Your task to perform on an android device: Go to Reddit.com Image 0: 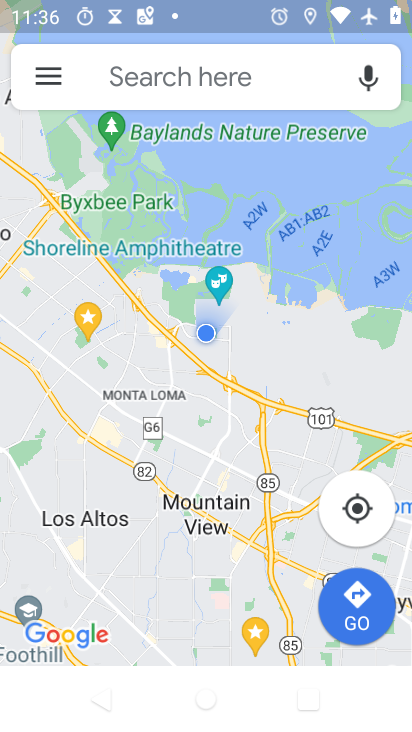
Step 0: press back button
Your task to perform on an android device: Go to Reddit.com Image 1: 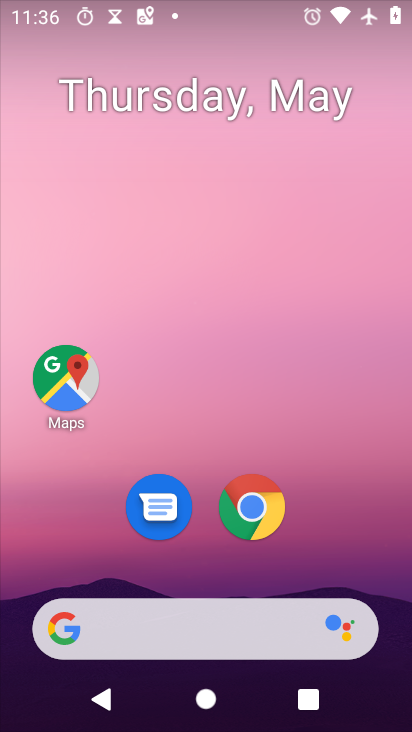
Step 1: drag from (349, 532) to (274, 15)
Your task to perform on an android device: Go to Reddit.com Image 2: 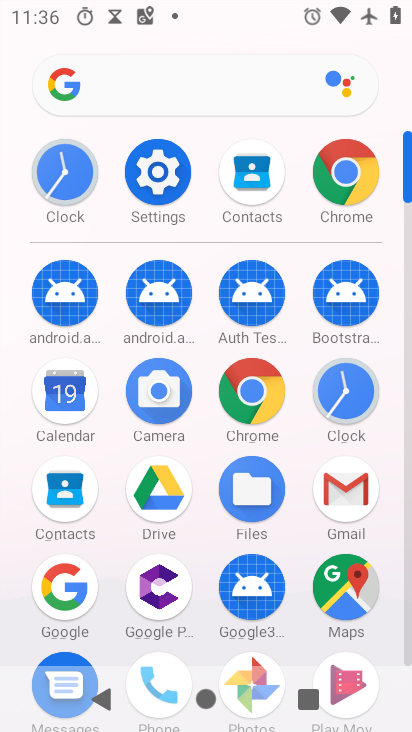
Step 2: drag from (16, 549) to (25, 253)
Your task to perform on an android device: Go to Reddit.com Image 3: 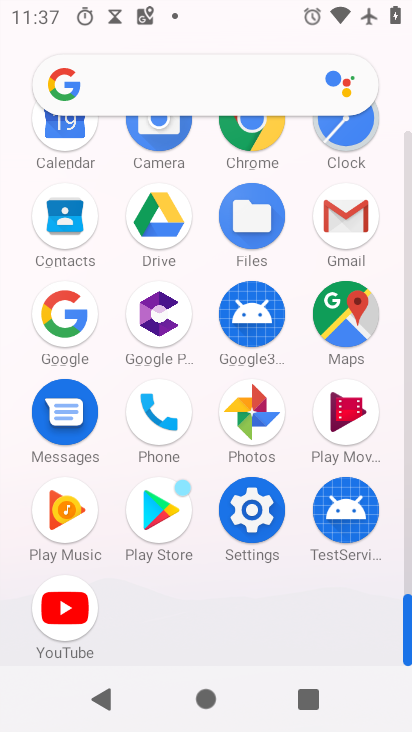
Step 3: drag from (15, 570) to (67, 210)
Your task to perform on an android device: Go to Reddit.com Image 4: 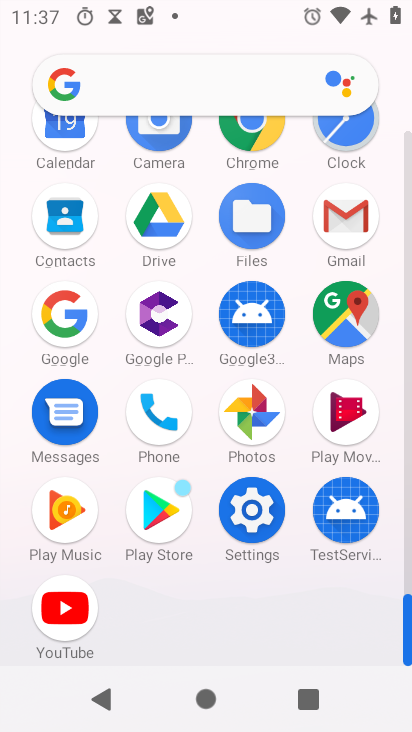
Step 4: click (251, 120)
Your task to perform on an android device: Go to Reddit.com Image 5: 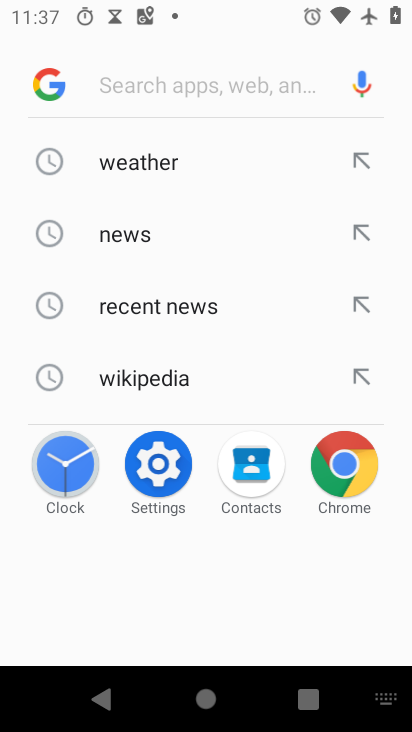
Step 5: press back button
Your task to perform on an android device: Go to Reddit.com Image 6: 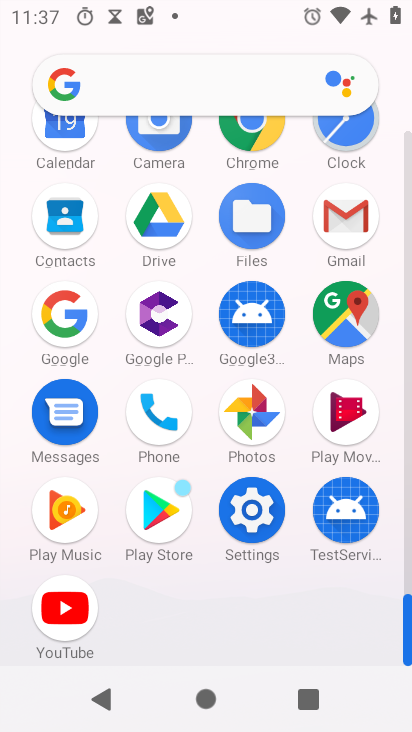
Step 6: click (248, 123)
Your task to perform on an android device: Go to Reddit.com Image 7: 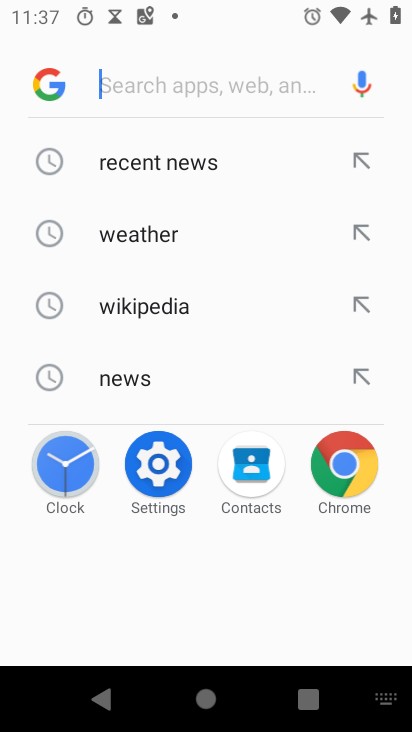
Step 7: press back button
Your task to perform on an android device: Go to Reddit.com Image 8: 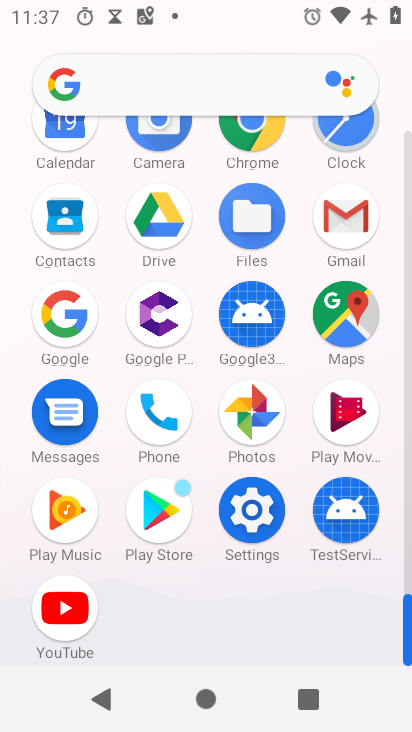
Step 8: drag from (23, 203) to (14, 484)
Your task to perform on an android device: Go to Reddit.com Image 9: 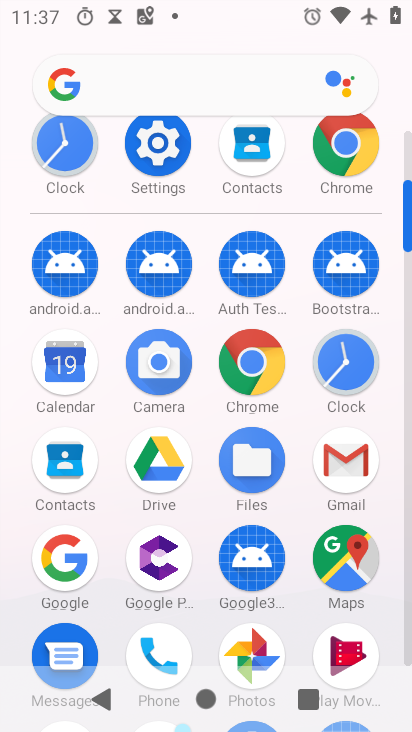
Step 9: click (250, 355)
Your task to perform on an android device: Go to Reddit.com Image 10: 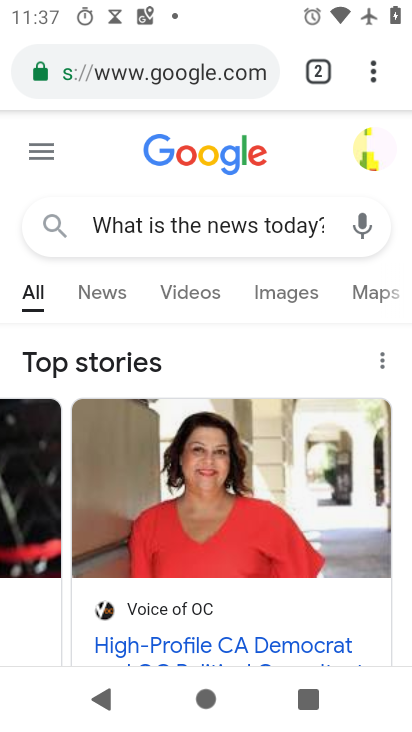
Step 10: click (158, 70)
Your task to perform on an android device: Go to Reddit.com Image 11: 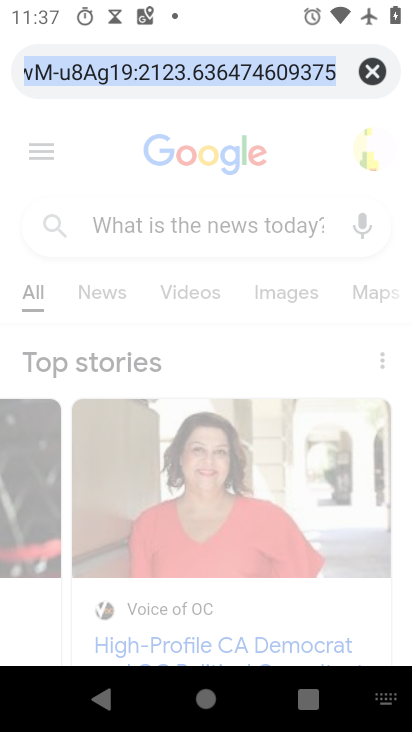
Step 11: click (371, 65)
Your task to perform on an android device: Go to Reddit.com Image 12: 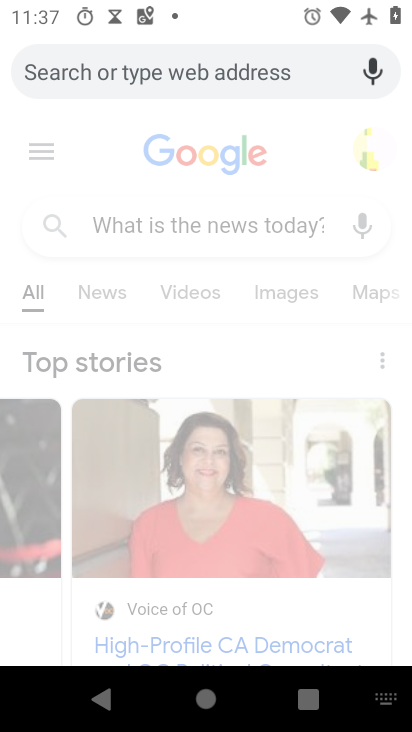
Step 12: type "Reddit.com"
Your task to perform on an android device: Go to Reddit.com Image 13: 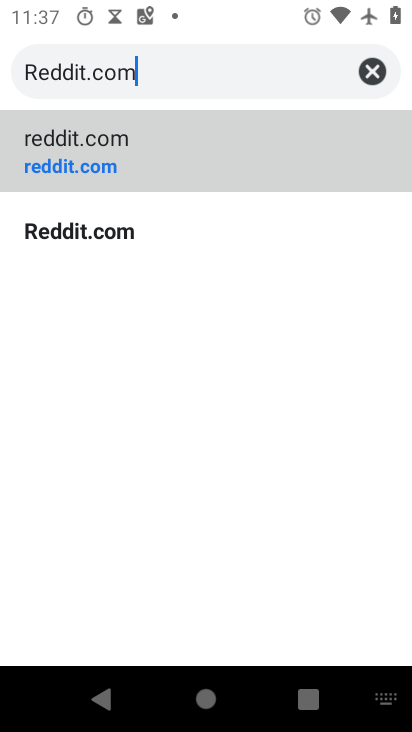
Step 13: type ""
Your task to perform on an android device: Go to Reddit.com Image 14: 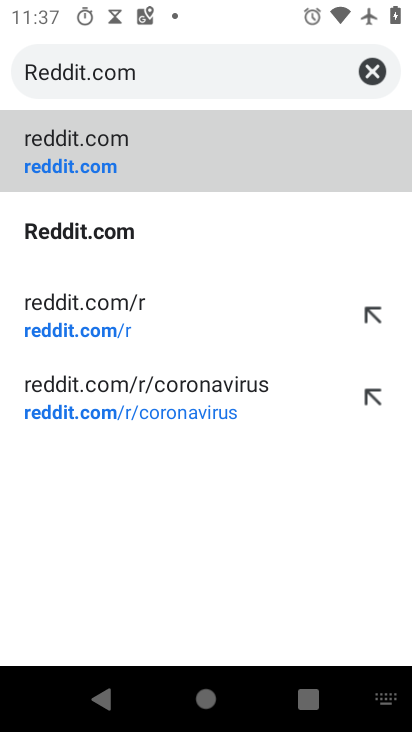
Step 14: click (172, 142)
Your task to perform on an android device: Go to Reddit.com Image 15: 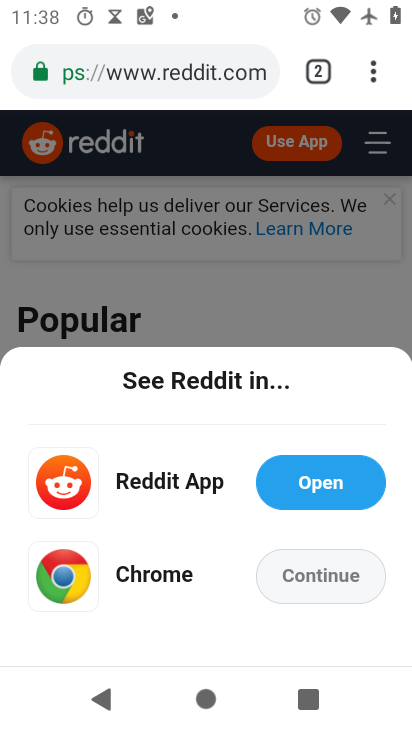
Step 15: task complete